Your task to perform on an android device: Open network settings Image 0: 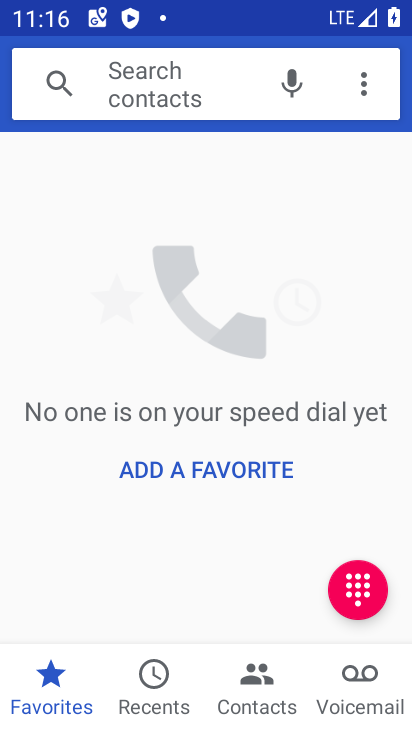
Step 0: press home button
Your task to perform on an android device: Open network settings Image 1: 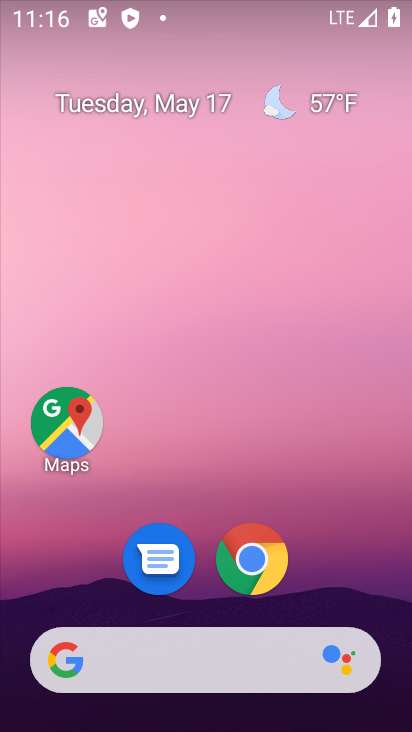
Step 1: drag from (361, 619) to (303, 4)
Your task to perform on an android device: Open network settings Image 2: 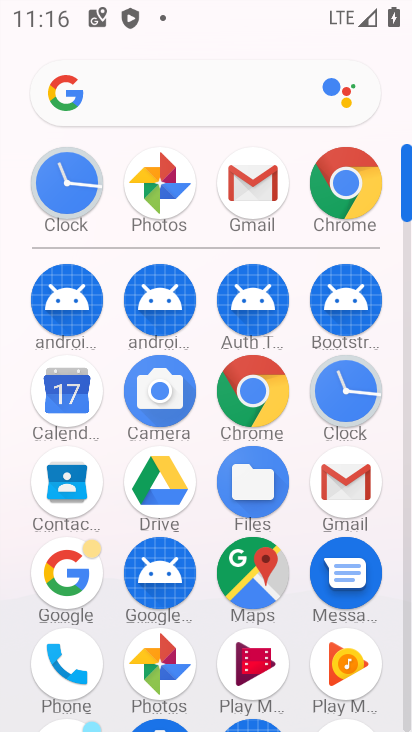
Step 2: drag from (212, 280) to (206, 14)
Your task to perform on an android device: Open network settings Image 3: 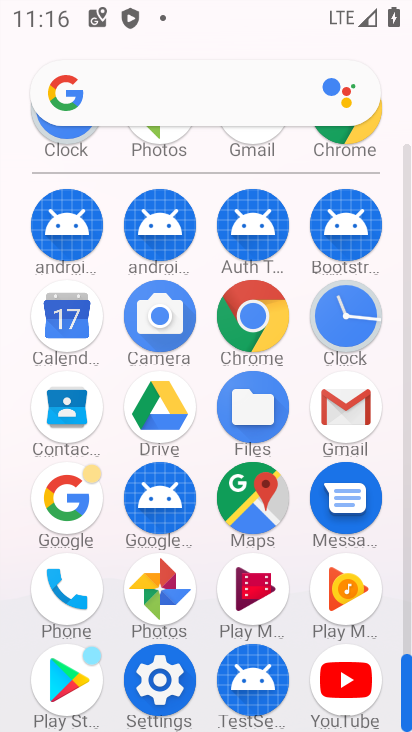
Step 3: click (166, 679)
Your task to perform on an android device: Open network settings Image 4: 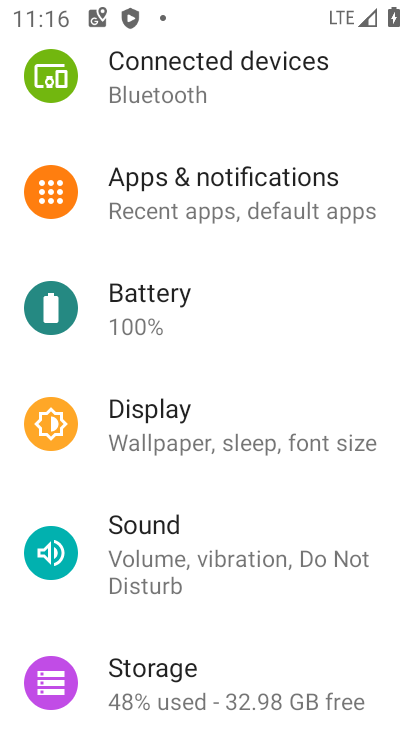
Step 4: drag from (204, 154) to (234, 437)
Your task to perform on an android device: Open network settings Image 5: 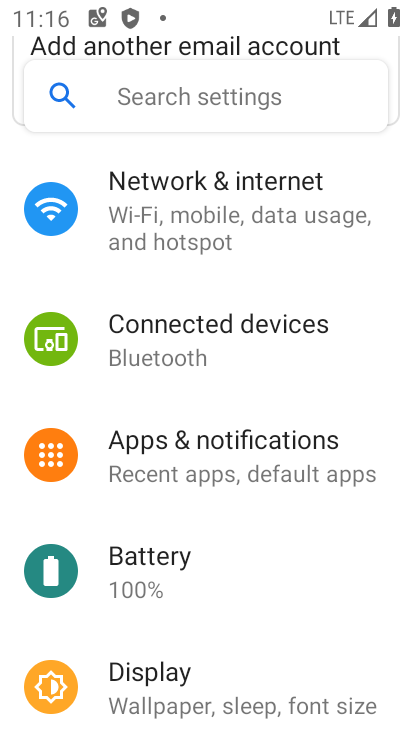
Step 5: click (207, 228)
Your task to perform on an android device: Open network settings Image 6: 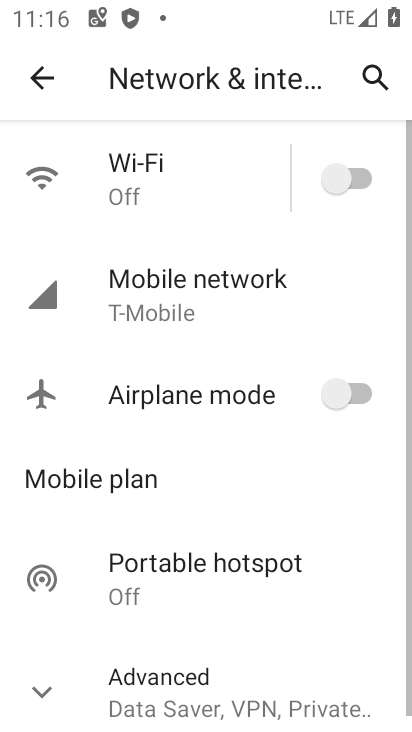
Step 6: task complete